Your task to perform on an android device: Clear the cart on ebay. Add razer blackwidow to the cart on ebay, then select checkout. Image 0: 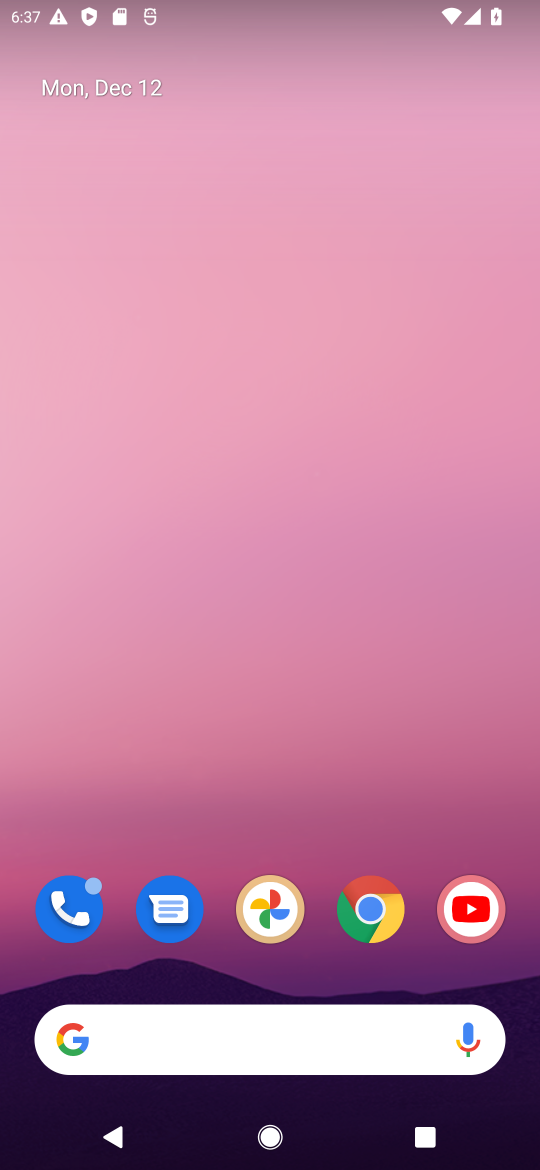
Step 0: click (373, 907)
Your task to perform on an android device: Clear the cart on ebay. Add razer blackwidow to the cart on ebay, then select checkout. Image 1: 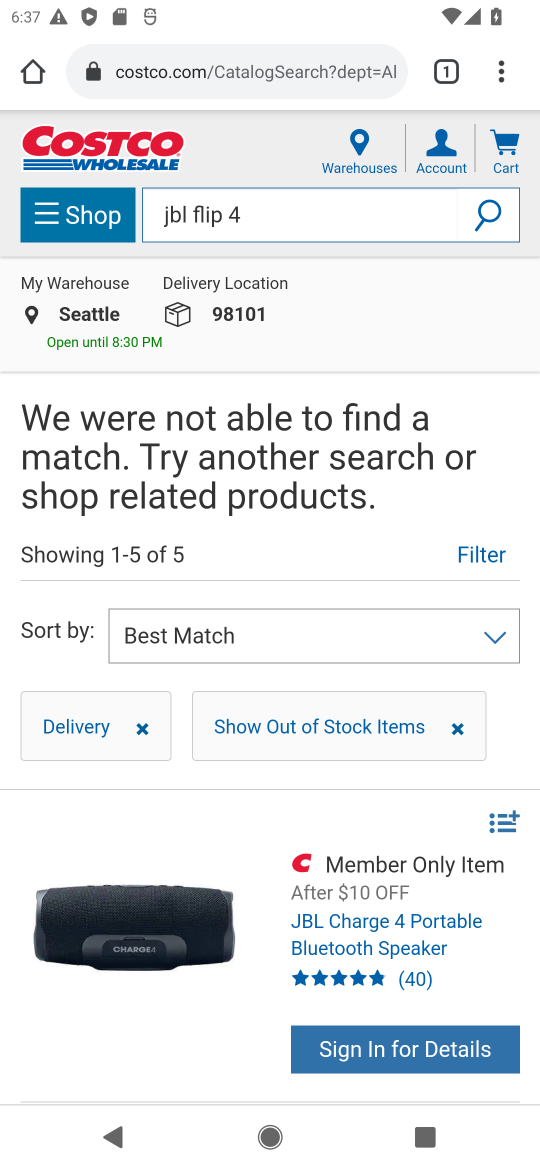
Step 1: click (202, 73)
Your task to perform on an android device: Clear the cart on ebay. Add razer blackwidow to the cart on ebay, then select checkout. Image 2: 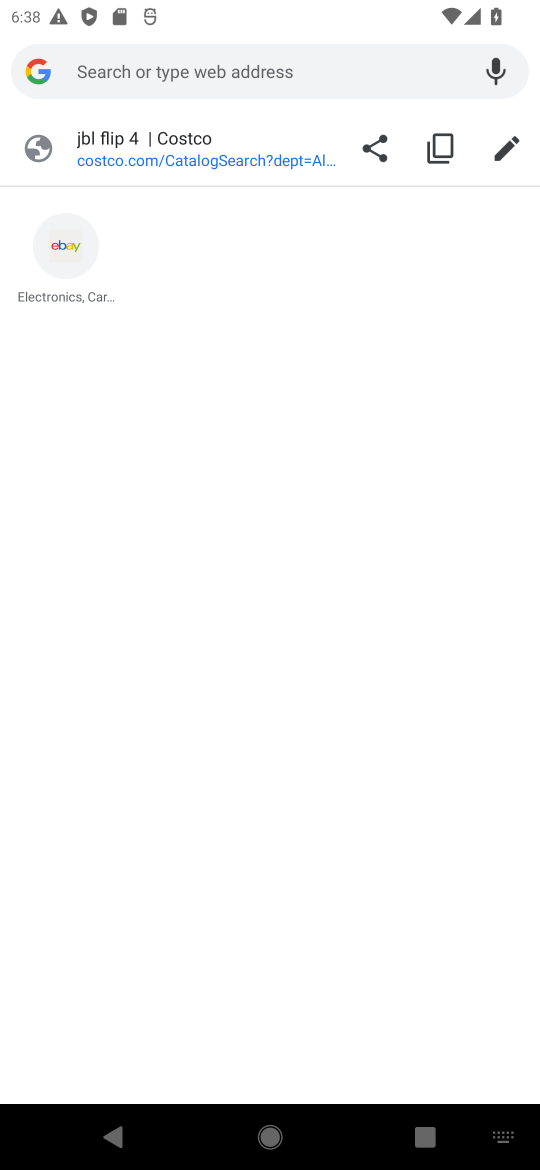
Step 2: type "ebay"
Your task to perform on an android device: Clear the cart on ebay. Add razer blackwidow to the cart on ebay, then select checkout. Image 3: 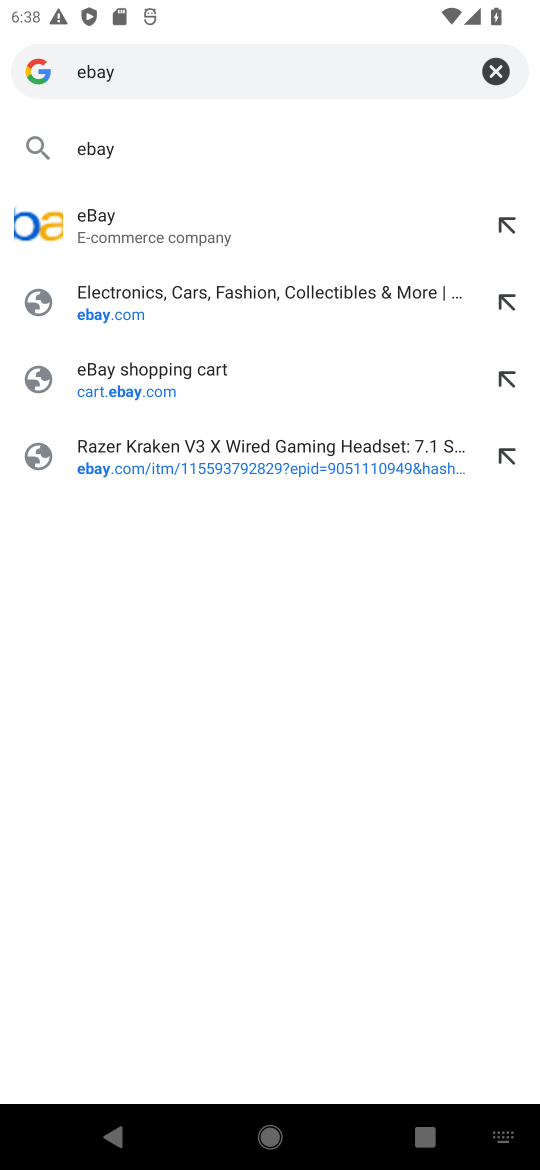
Step 3: click (130, 233)
Your task to perform on an android device: Clear the cart on ebay. Add razer blackwidow to the cart on ebay, then select checkout. Image 4: 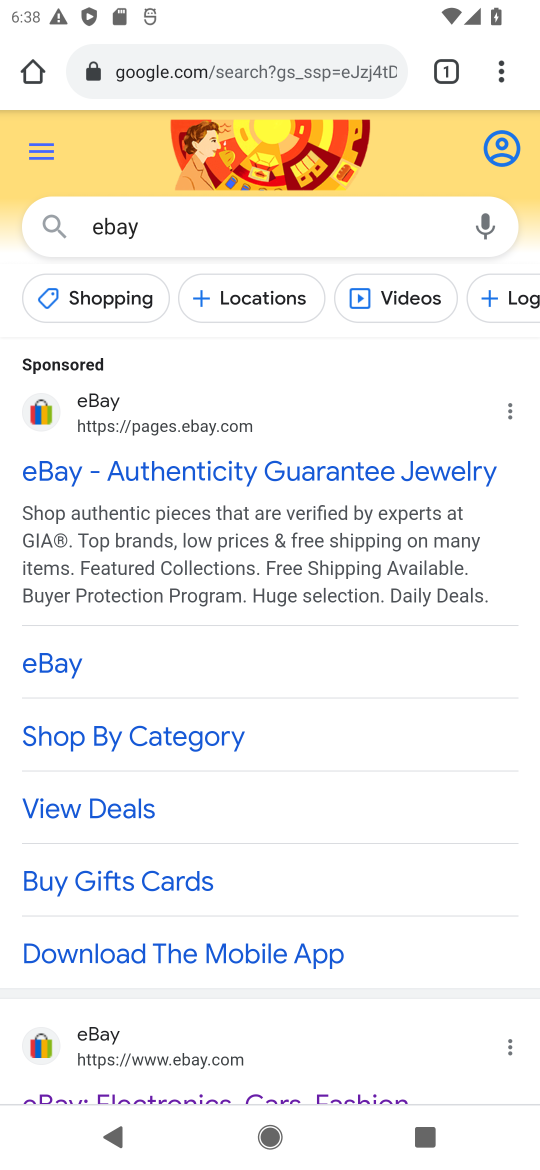
Step 4: click (51, 455)
Your task to perform on an android device: Clear the cart on ebay. Add razer blackwidow to the cart on ebay, then select checkout. Image 5: 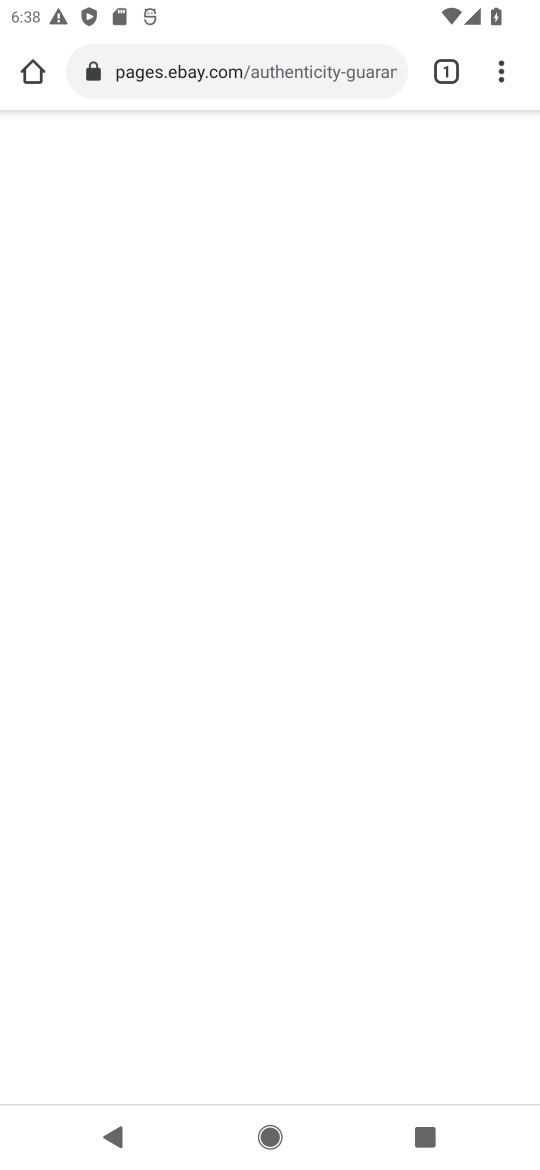
Step 5: click (225, 70)
Your task to perform on an android device: Clear the cart on ebay. Add razer blackwidow to the cart on ebay, then select checkout. Image 6: 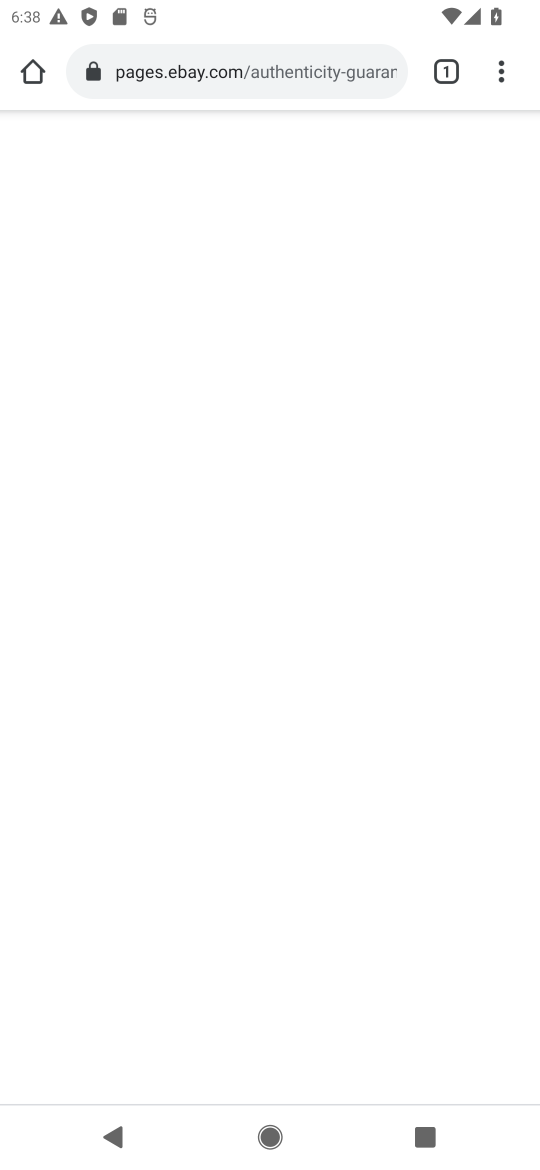
Step 6: click (225, 70)
Your task to perform on an android device: Clear the cart on ebay. Add razer blackwidow to the cart on ebay, then select checkout. Image 7: 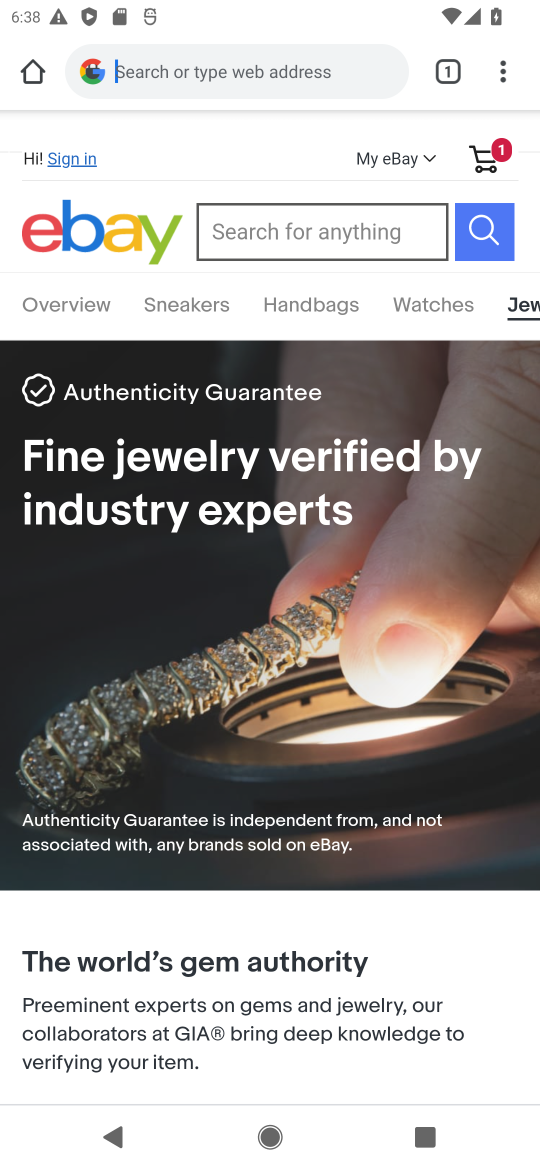
Step 7: click (225, 70)
Your task to perform on an android device: Clear the cart on ebay. Add razer blackwidow to the cart on ebay, then select checkout. Image 8: 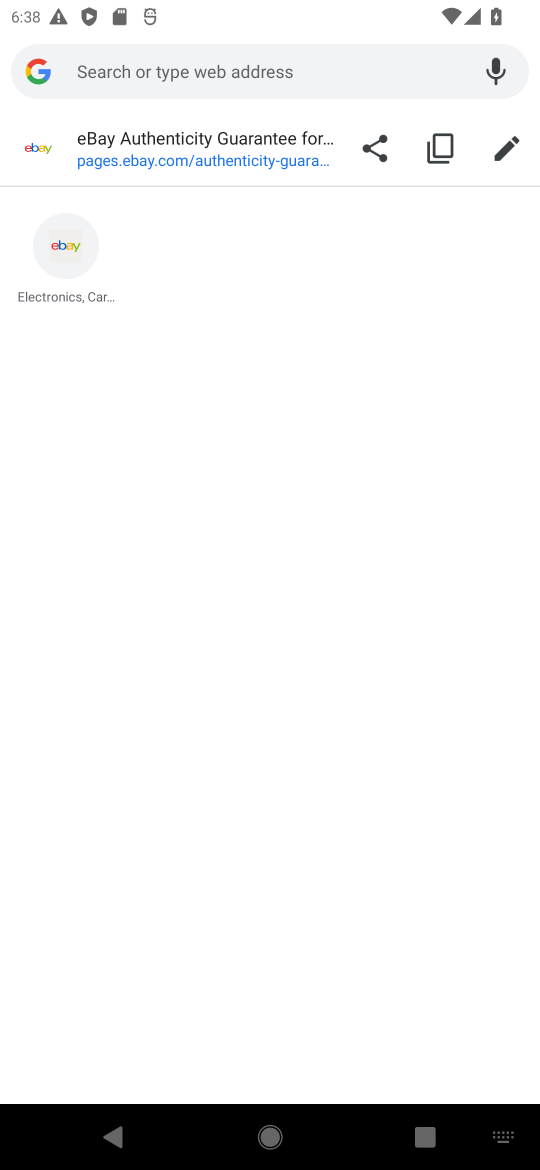
Step 8: click (211, 154)
Your task to perform on an android device: Clear the cart on ebay. Add razer blackwidow to the cart on ebay, then select checkout. Image 9: 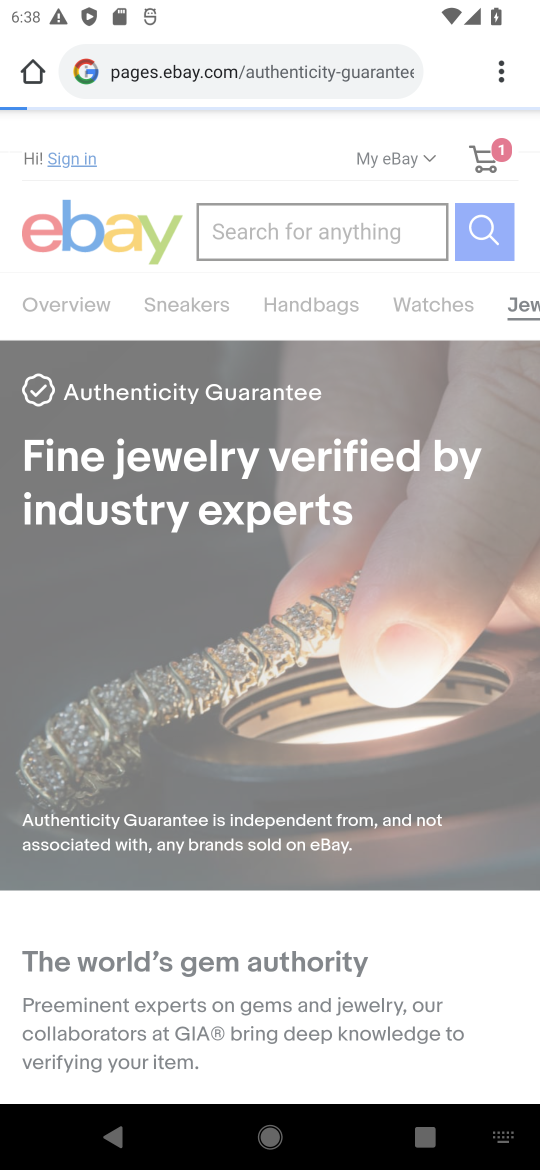
Step 9: click (211, 154)
Your task to perform on an android device: Clear the cart on ebay. Add razer blackwidow to the cart on ebay, then select checkout. Image 10: 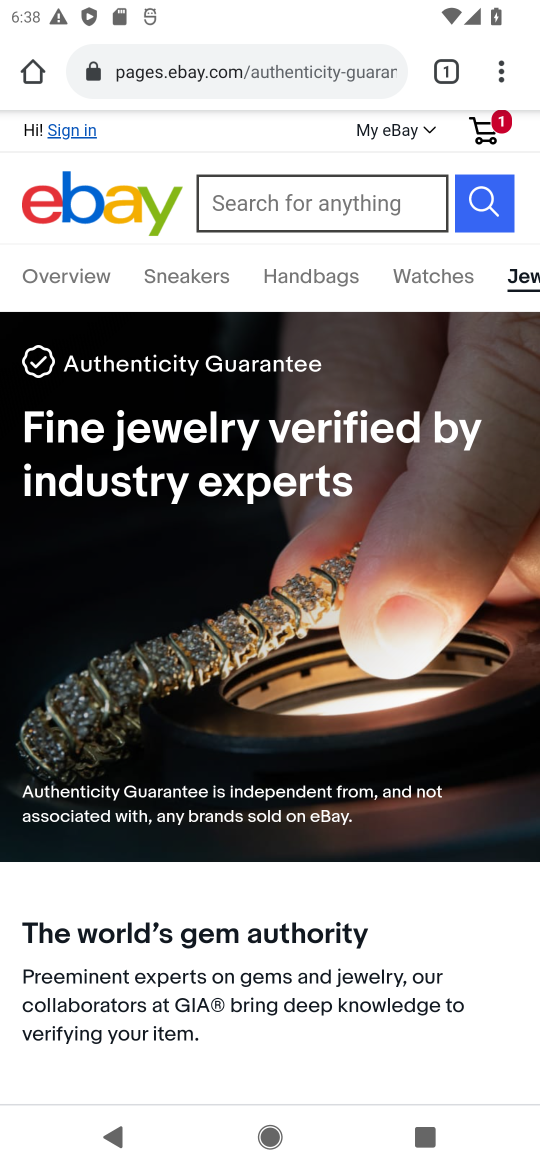
Step 10: click (485, 142)
Your task to perform on an android device: Clear the cart on ebay. Add razer blackwidow to the cart on ebay, then select checkout. Image 11: 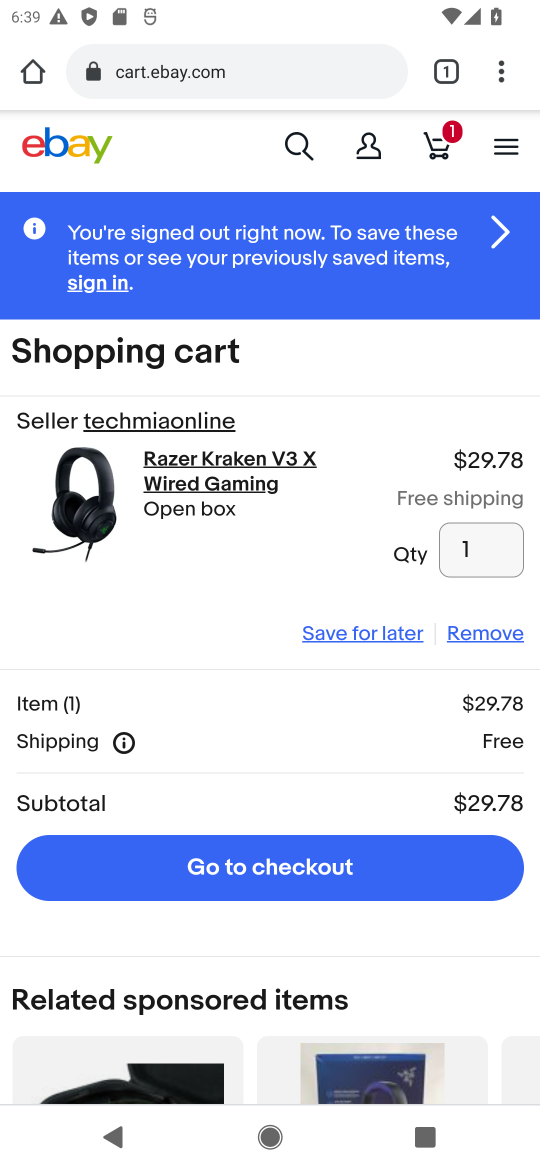
Step 11: click (499, 633)
Your task to perform on an android device: Clear the cart on ebay. Add razer blackwidow to the cart on ebay, then select checkout. Image 12: 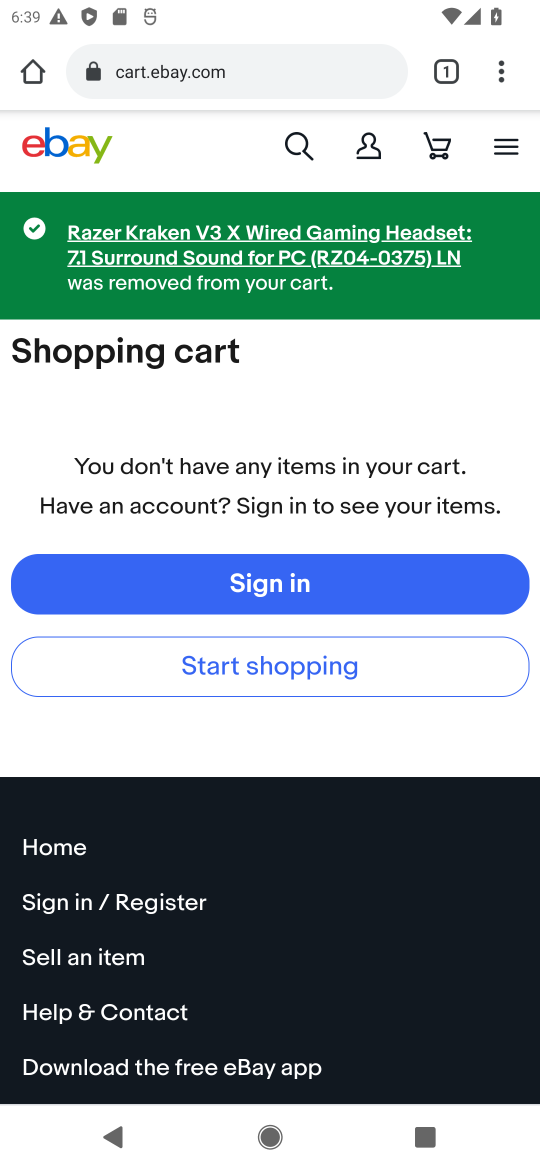
Step 12: click (298, 148)
Your task to perform on an android device: Clear the cart on ebay. Add razer blackwidow to the cart on ebay, then select checkout. Image 13: 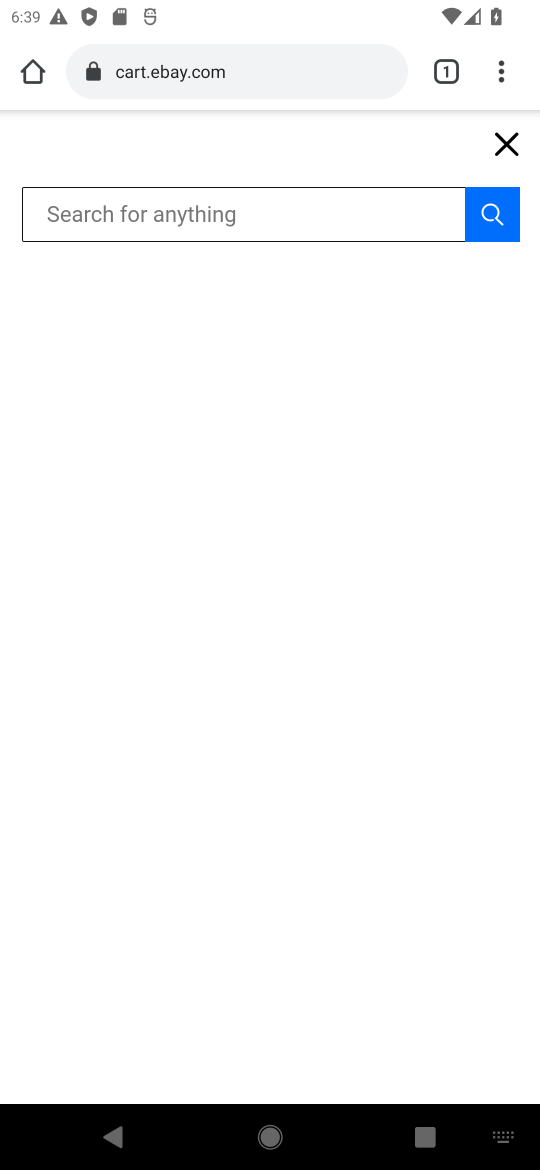
Step 13: type "razer blackwidow "
Your task to perform on an android device: Clear the cart on ebay. Add razer blackwidow to the cart on ebay, then select checkout. Image 14: 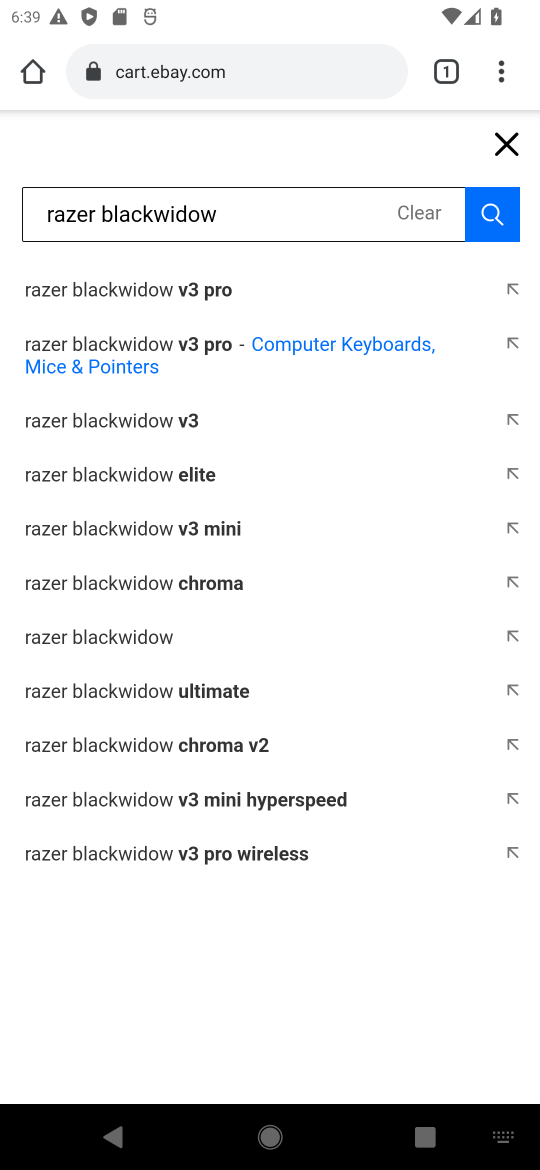
Step 14: click (496, 202)
Your task to perform on an android device: Clear the cart on ebay. Add razer blackwidow to the cart on ebay, then select checkout. Image 15: 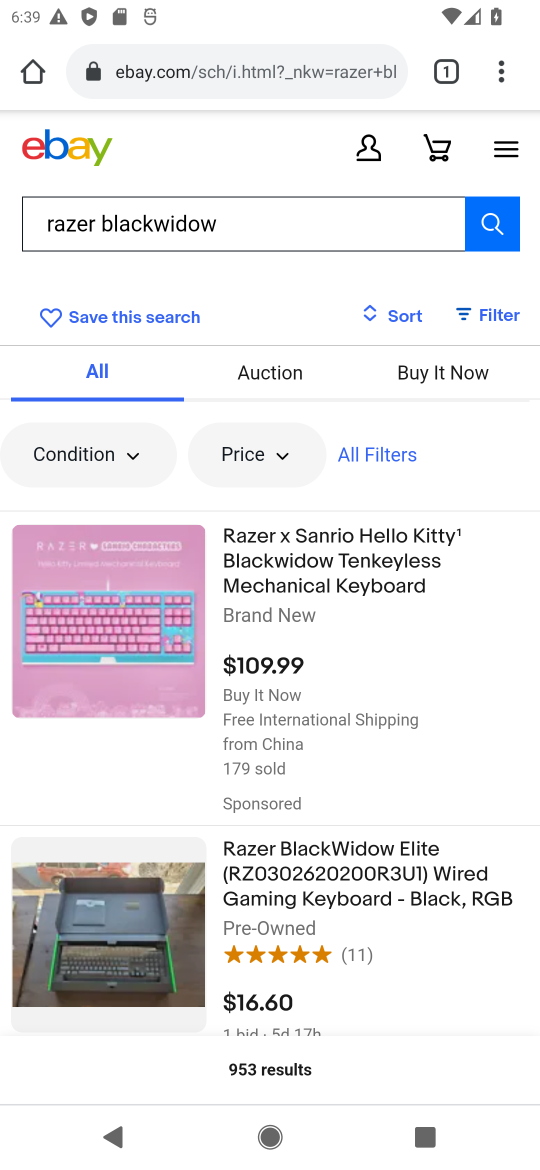
Step 15: click (344, 901)
Your task to perform on an android device: Clear the cart on ebay. Add razer blackwidow to the cart on ebay, then select checkout. Image 16: 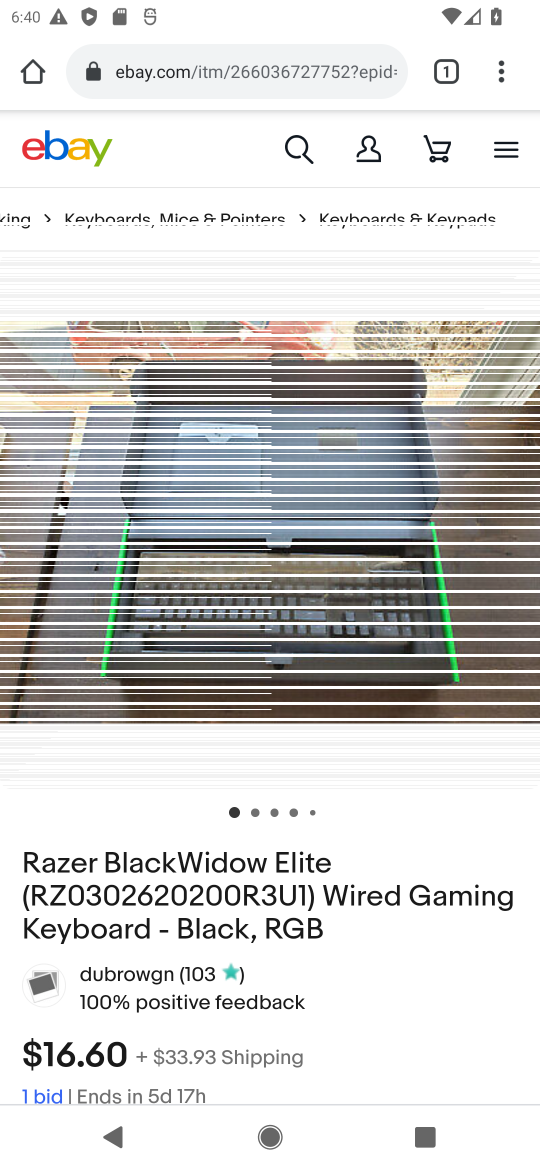
Step 16: drag from (316, 981) to (322, 453)
Your task to perform on an android device: Clear the cart on ebay. Add razer blackwidow to the cart on ebay, then select checkout. Image 17: 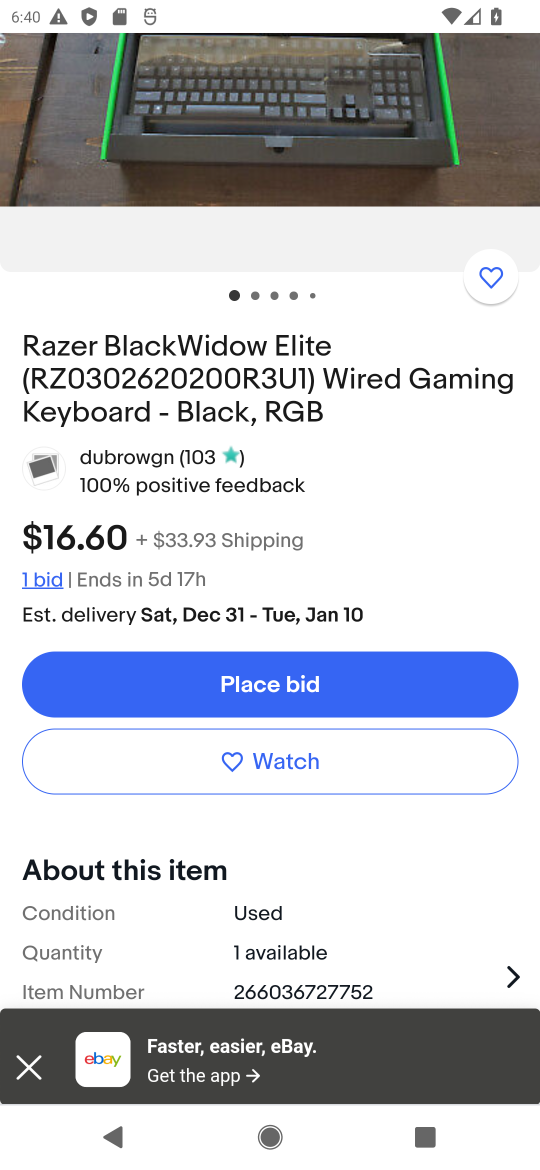
Step 17: press back button
Your task to perform on an android device: Clear the cart on ebay. Add razer blackwidow to the cart on ebay, then select checkout. Image 18: 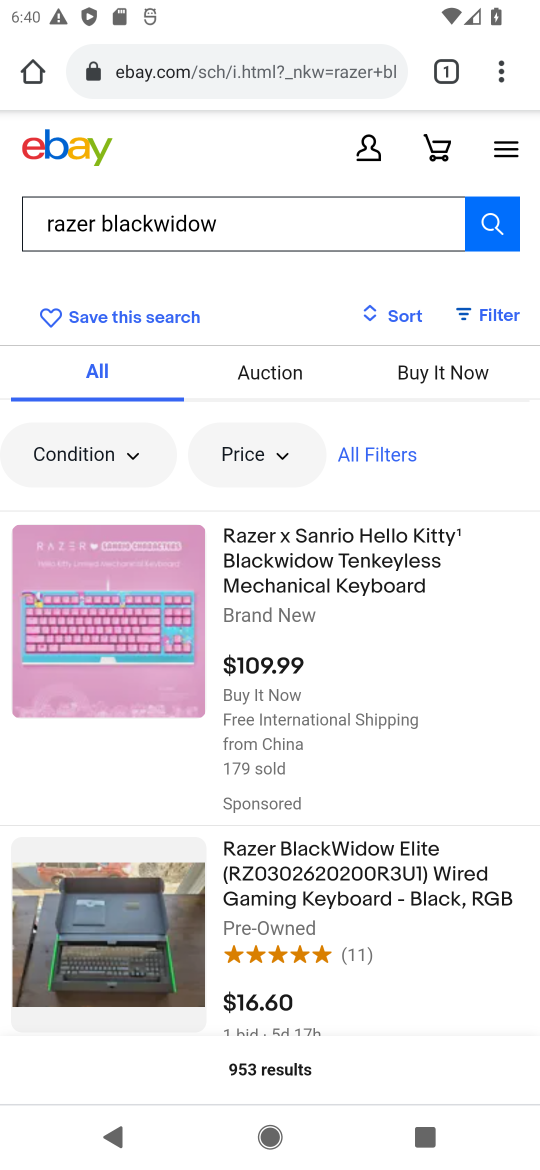
Step 18: drag from (309, 982) to (298, 534)
Your task to perform on an android device: Clear the cart on ebay. Add razer blackwidow to the cart on ebay, then select checkout. Image 19: 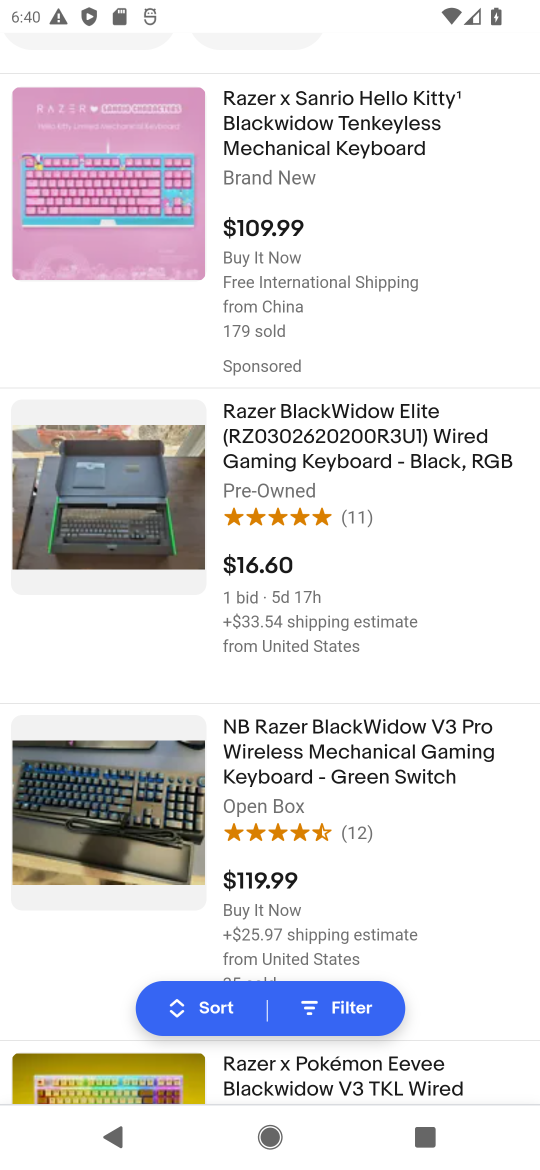
Step 19: click (353, 146)
Your task to perform on an android device: Clear the cart on ebay. Add razer blackwidow to the cart on ebay, then select checkout. Image 20: 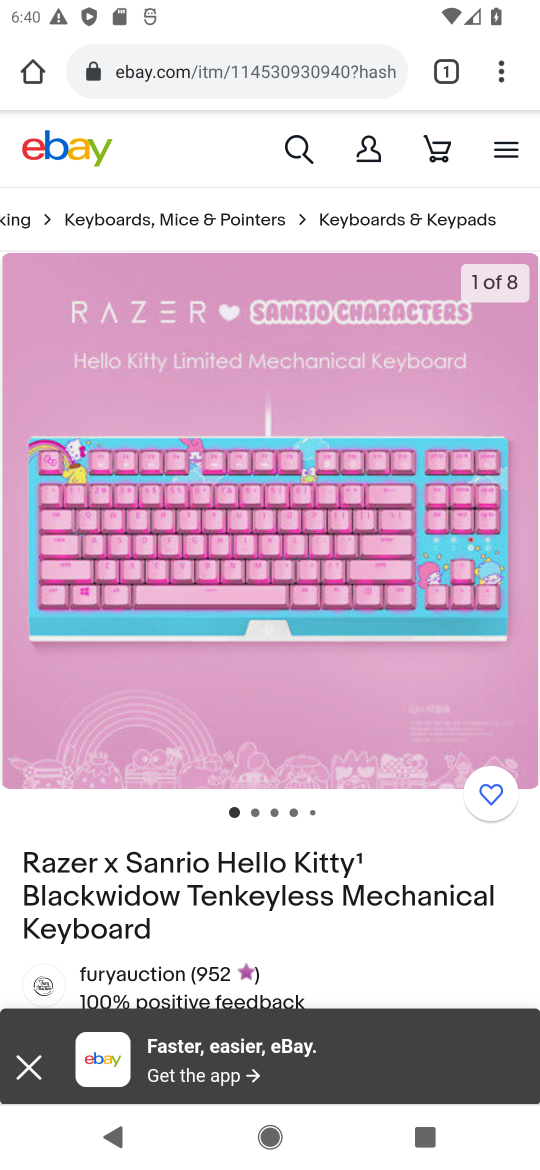
Step 20: drag from (276, 973) to (344, 192)
Your task to perform on an android device: Clear the cart on ebay. Add razer blackwidow to the cart on ebay, then select checkout. Image 21: 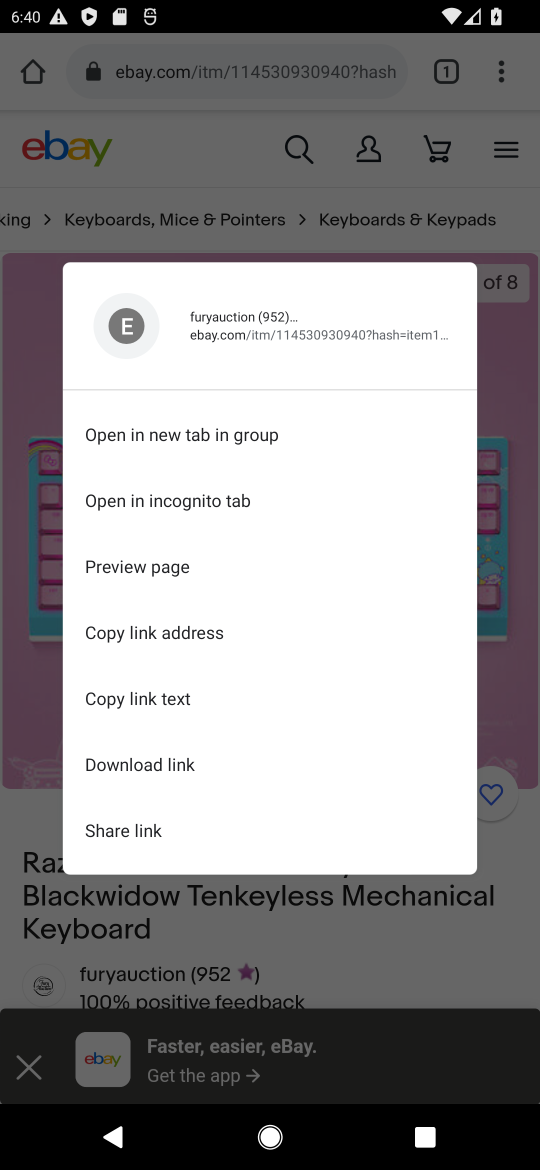
Step 21: click (382, 969)
Your task to perform on an android device: Clear the cart on ebay. Add razer blackwidow to the cart on ebay, then select checkout. Image 22: 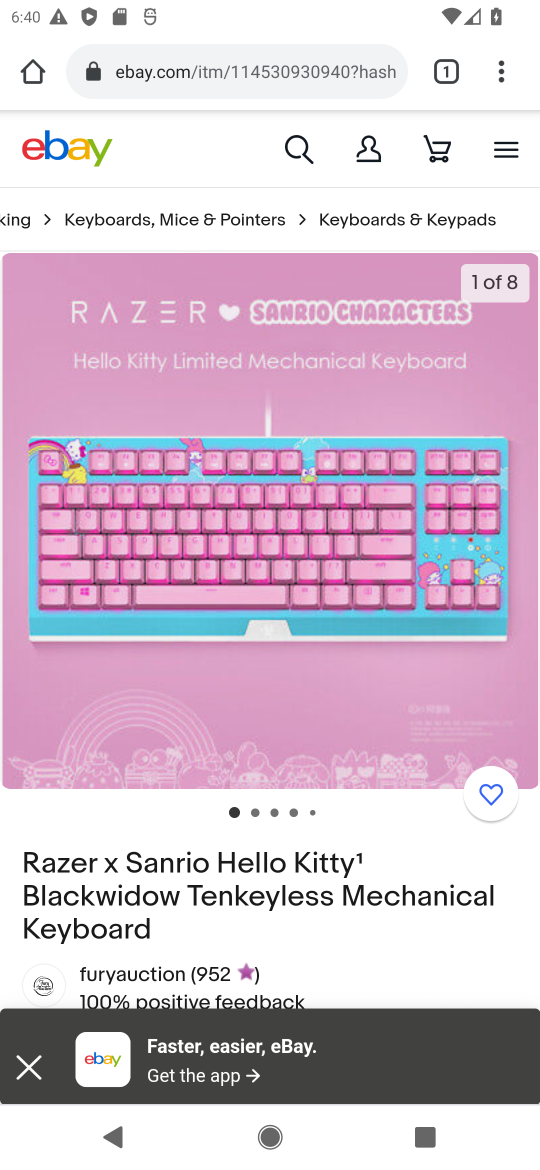
Step 22: drag from (382, 969) to (363, 383)
Your task to perform on an android device: Clear the cart on ebay. Add razer blackwidow to the cart on ebay, then select checkout. Image 23: 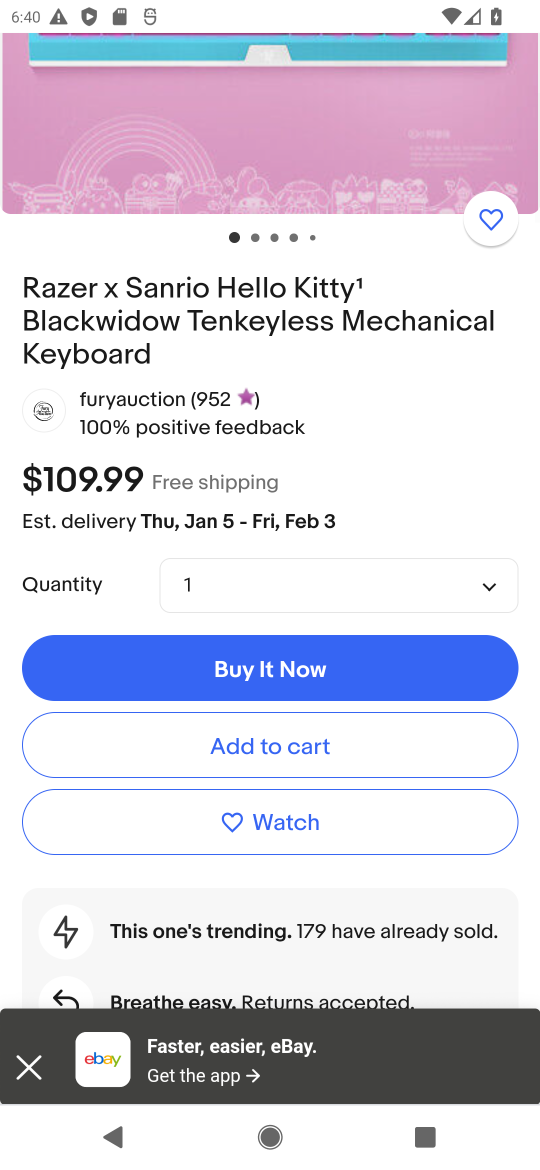
Step 23: click (264, 758)
Your task to perform on an android device: Clear the cart on ebay. Add razer blackwidow to the cart on ebay, then select checkout. Image 24: 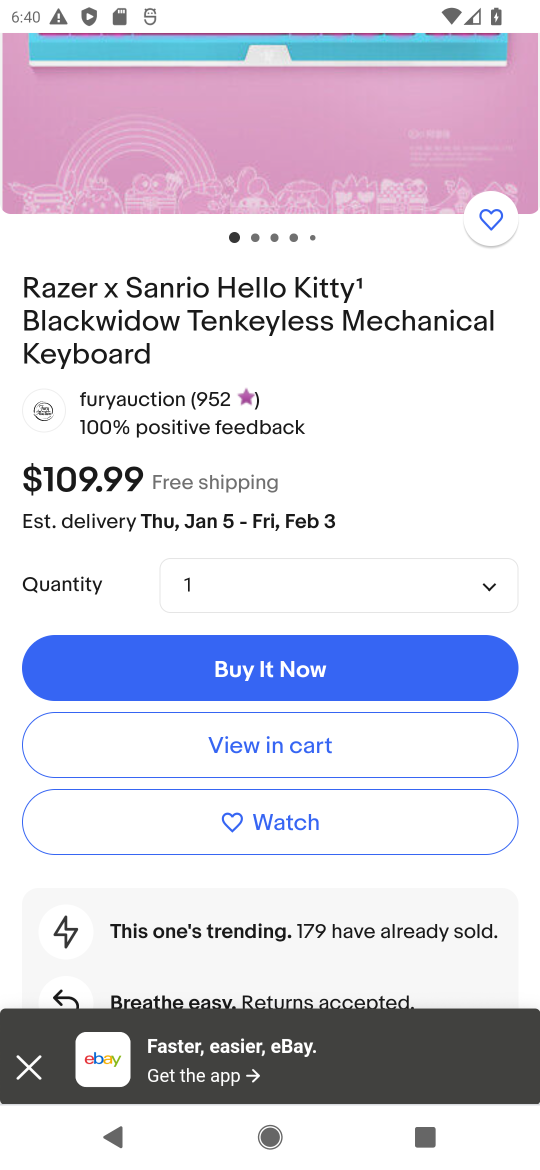
Step 24: click (264, 758)
Your task to perform on an android device: Clear the cart on ebay. Add razer blackwidow to the cart on ebay, then select checkout. Image 25: 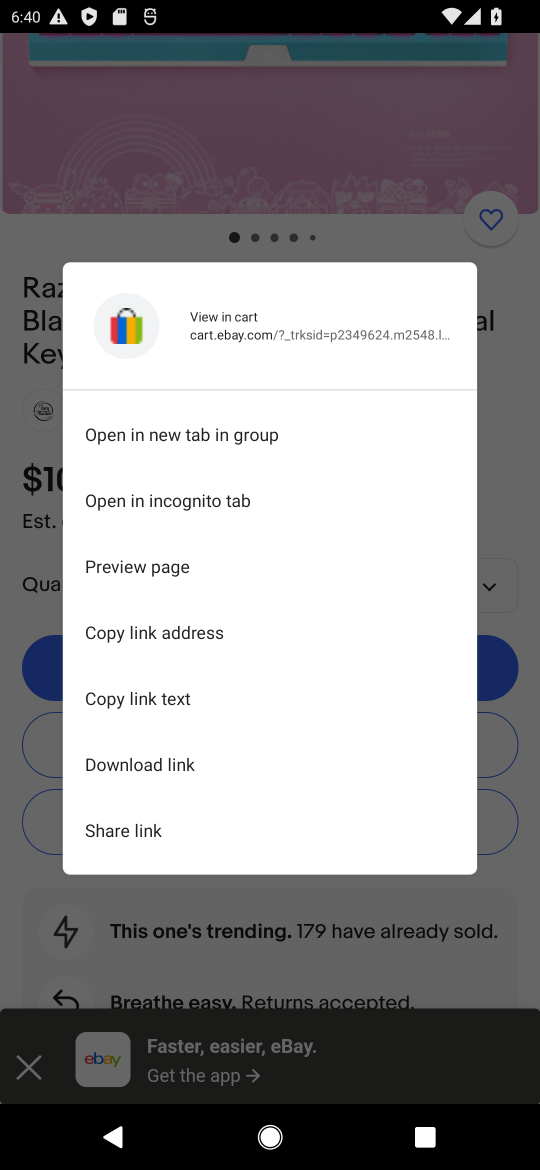
Step 25: click (300, 977)
Your task to perform on an android device: Clear the cart on ebay. Add razer blackwidow to the cart on ebay, then select checkout. Image 26: 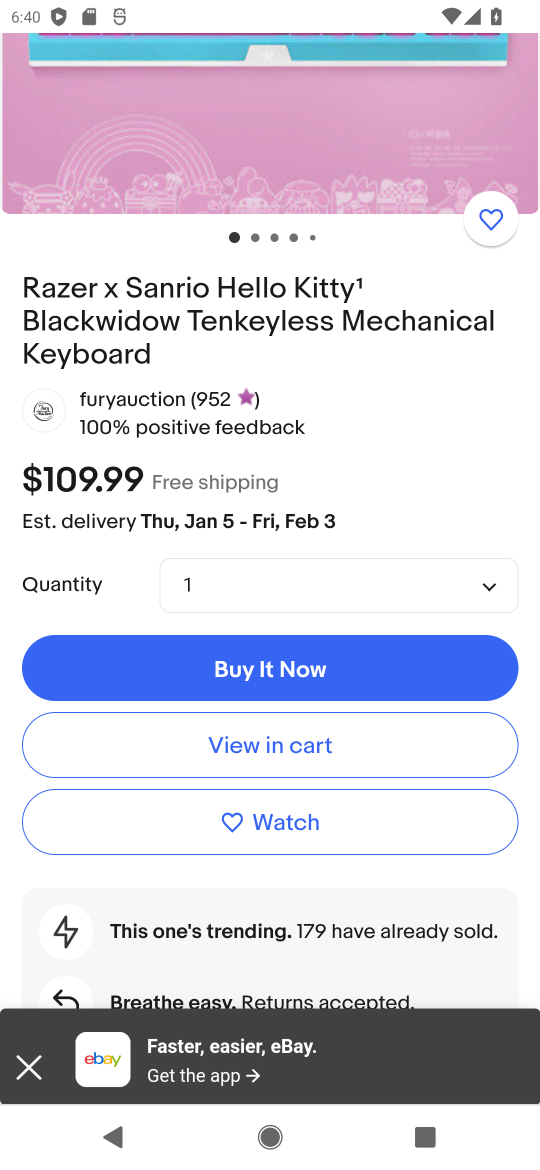
Step 26: click (235, 760)
Your task to perform on an android device: Clear the cart on ebay. Add razer blackwidow to the cart on ebay, then select checkout. Image 27: 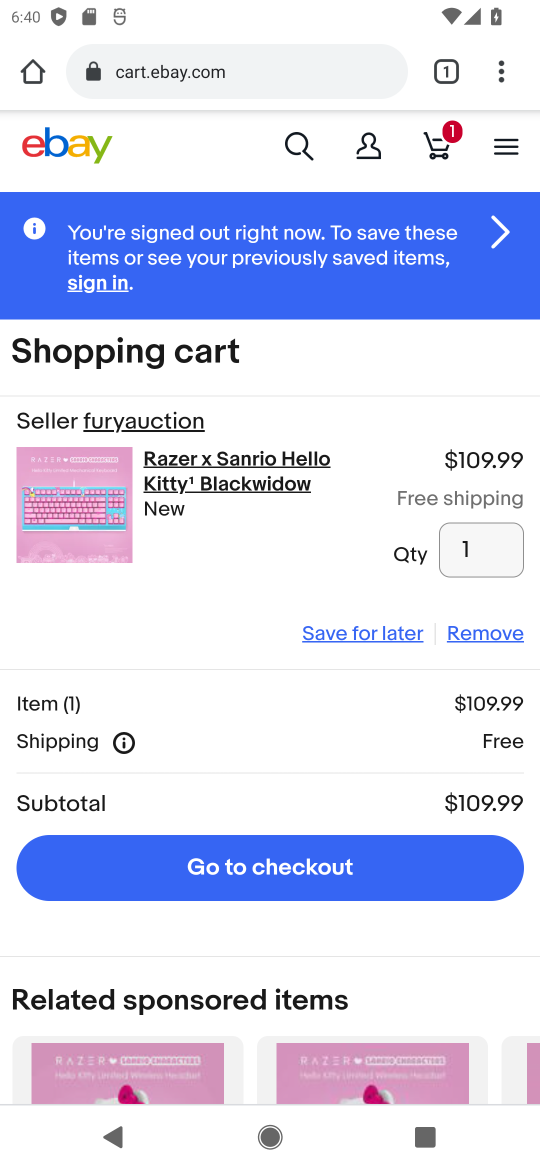
Step 27: click (335, 861)
Your task to perform on an android device: Clear the cart on ebay. Add razer blackwidow to the cart on ebay, then select checkout. Image 28: 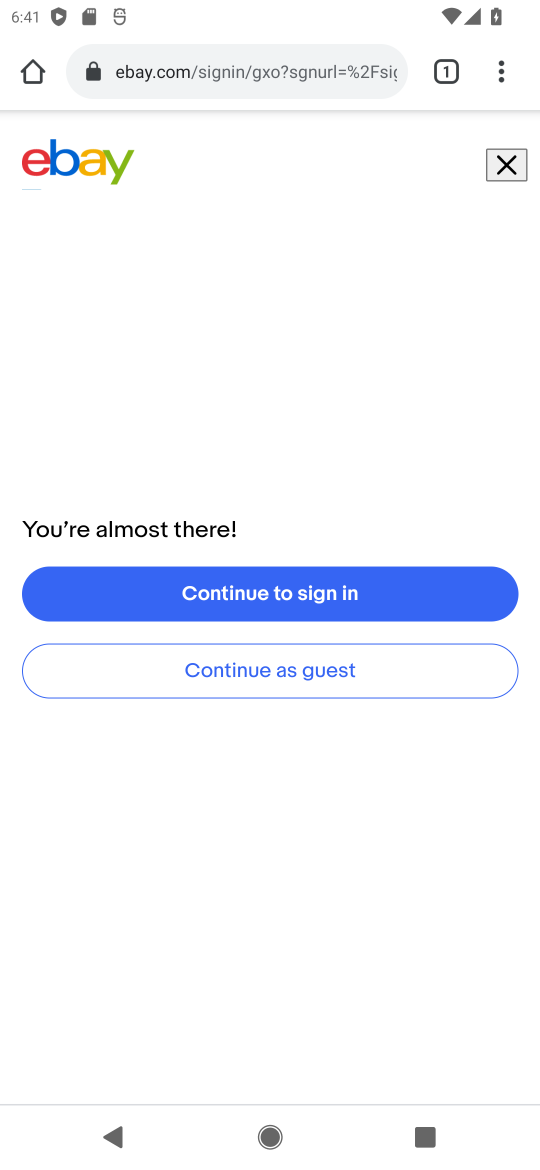
Step 28: task complete